Your task to perform on an android device: Check the weather Image 0: 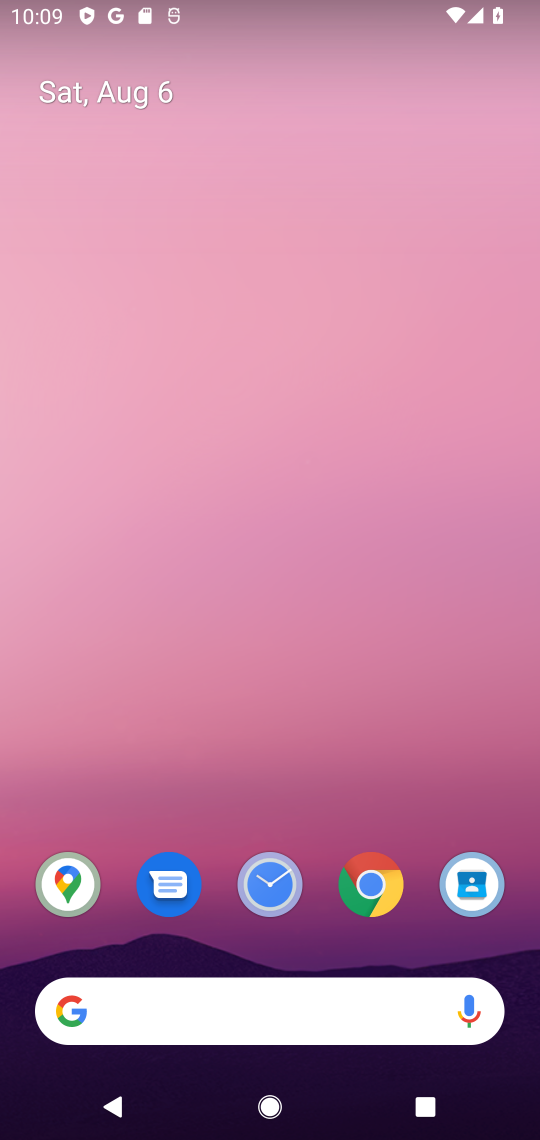
Step 0: click (233, 1005)
Your task to perform on an android device: Check the weather Image 1: 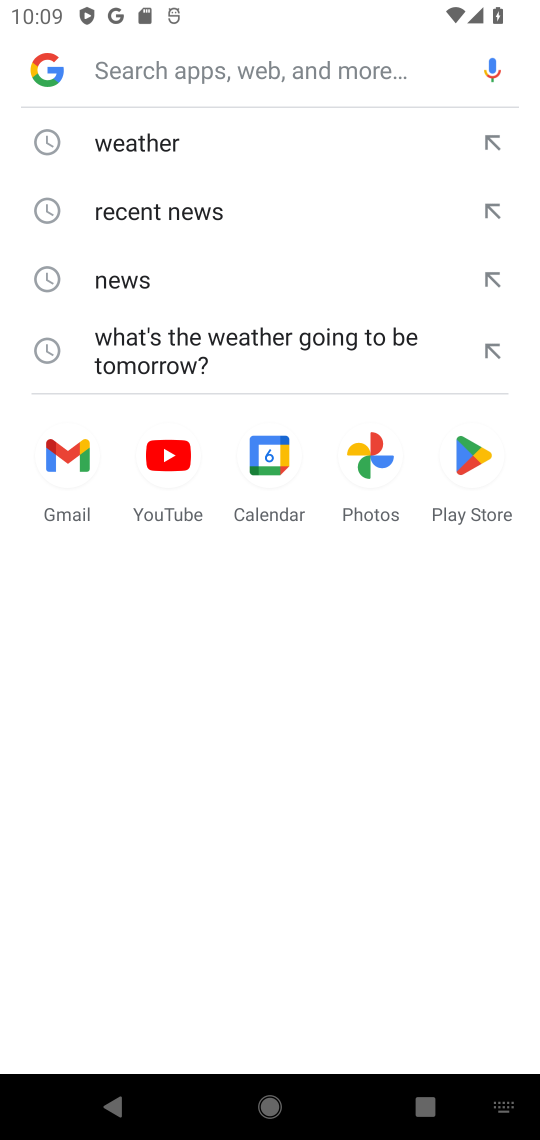
Step 1: click (138, 137)
Your task to perform on an android device: Check the weather Image 2: 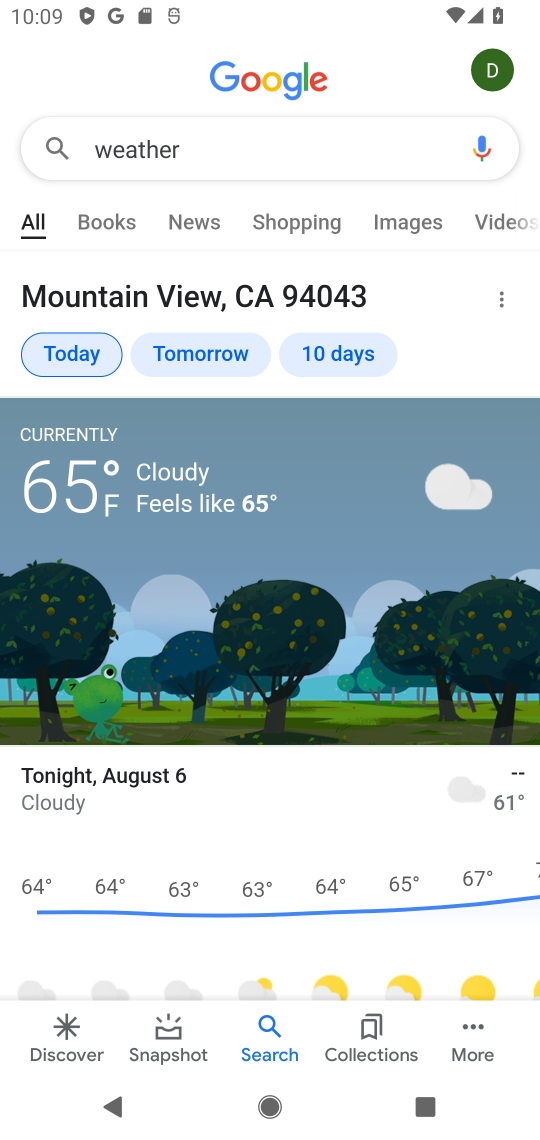
Step 2: click (348, 350)
Your task to perform on an android device: Check the weather Image 3: 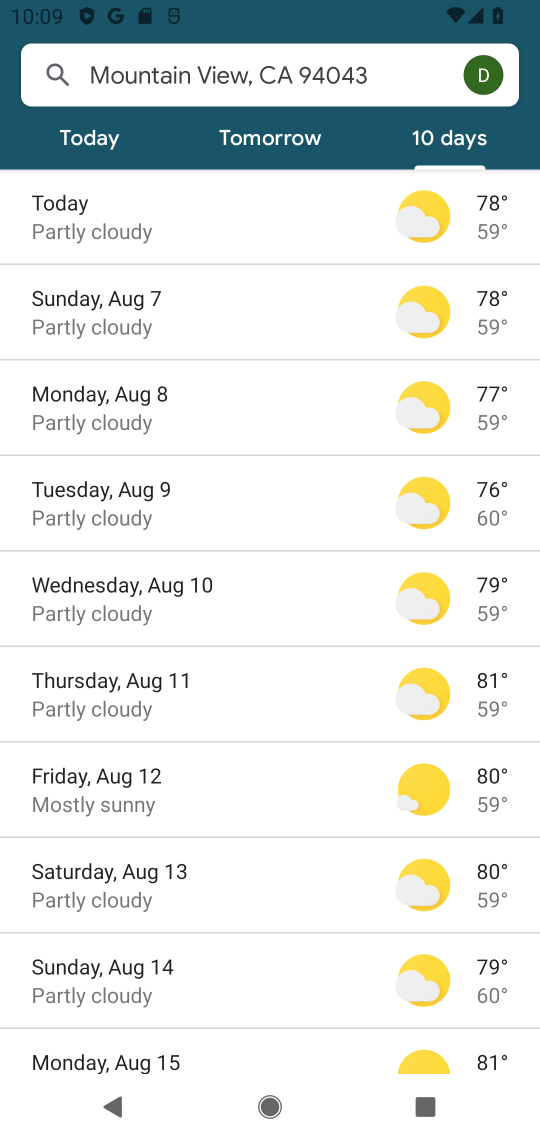
Step 3: click (92, 139)
Your task to perform on an android device: Check the weather Image 4: 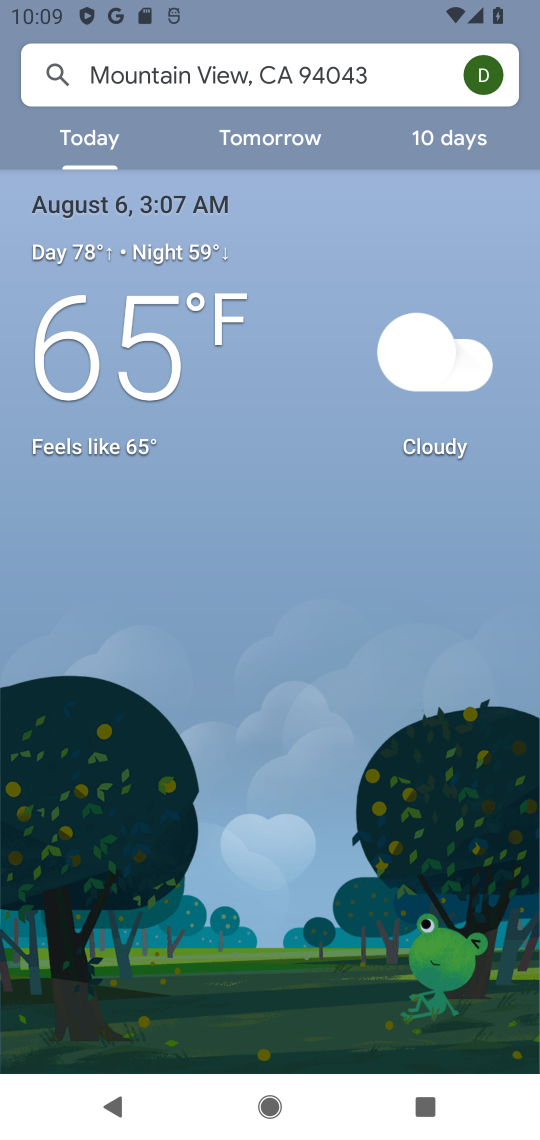
Step 4: task complete